Your task to perform on an android device: Go to privacy settings Image 0: 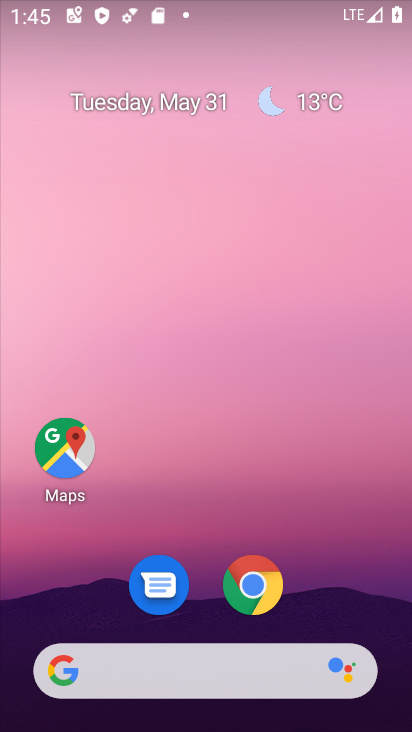
Step 0: drag from (225, 492) to (232, 54)
Your task to perform on an android device: Go to privacy settings Image 1: 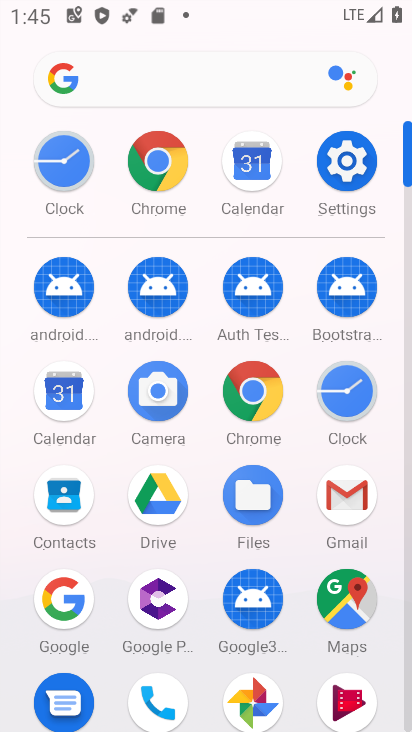
Step 1: click (342, 170)
Your task to perform on an android device: Go to privacy settings Image 2: 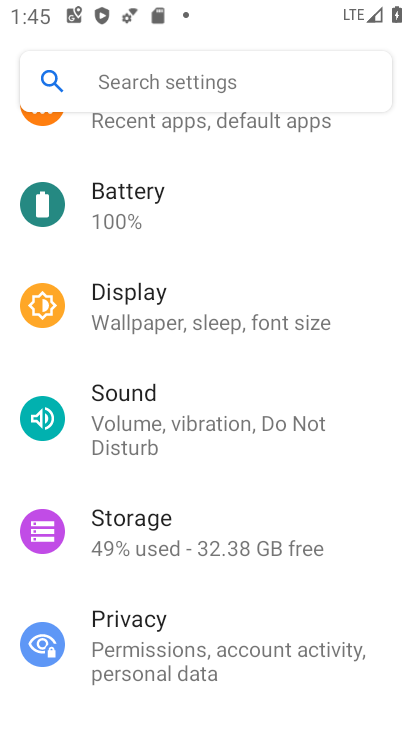
Step 2: click (208, 632)
Your task to perform on an android device: Go to privacy settings Image 3: 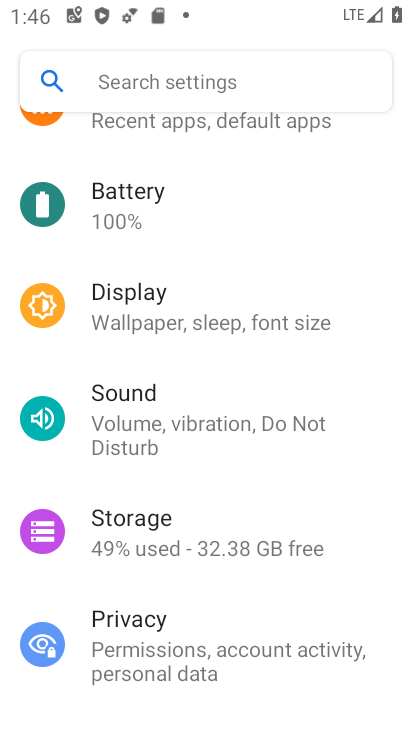
Step 3: click (218, 625)
Your task to perform on an android device: Go to privacy settings Image 4: 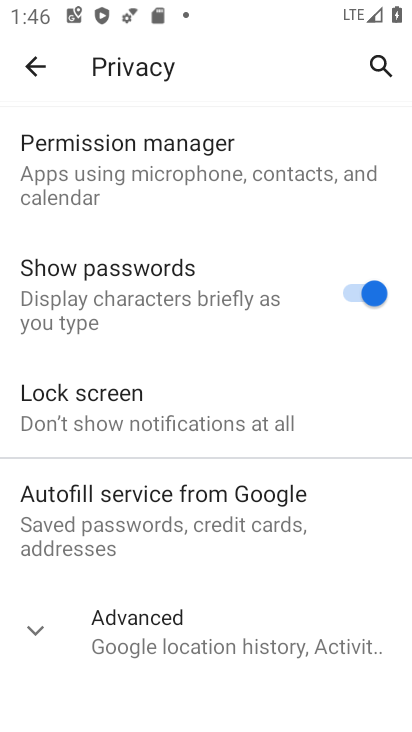
Step 4: task complete